Your task to perform on an android device: Show me recent news Image 0: 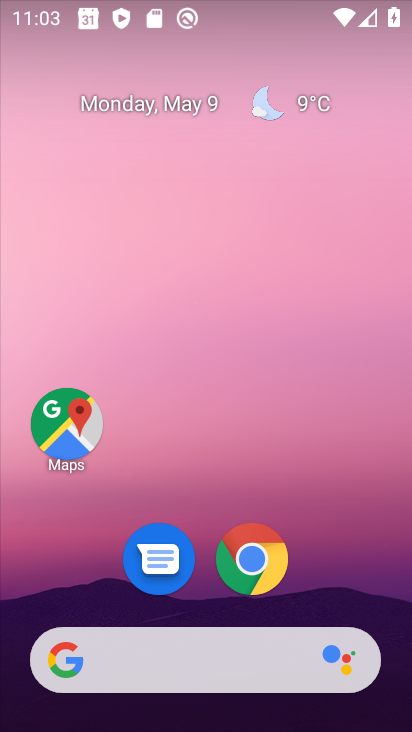
Step 0: drag from (345, 478) to (287, 146)
Your task to perform on an android device: Show me recent news Image 1: 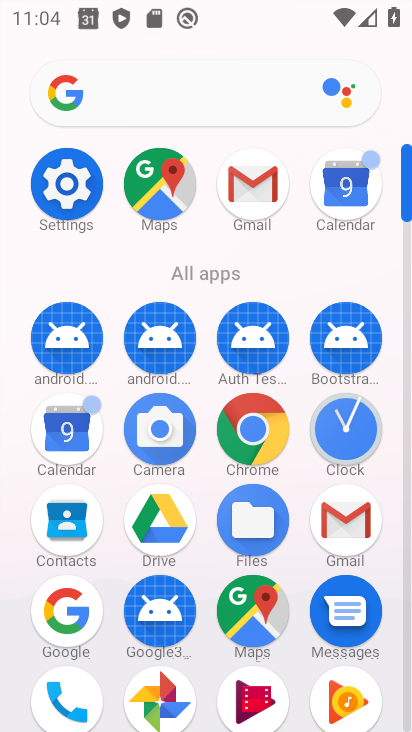
Step 1: click (272, 425)
Your task to perform on an android device: Show me recent news Image 2: 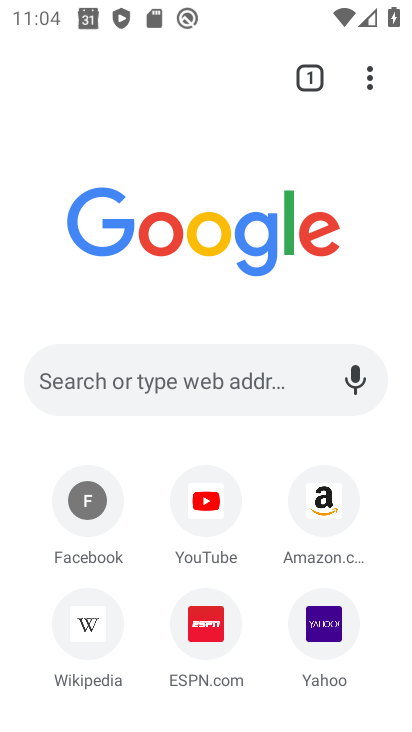
Step 2: task complete